Your task to perform on an android device: change notifications settings Image 0: 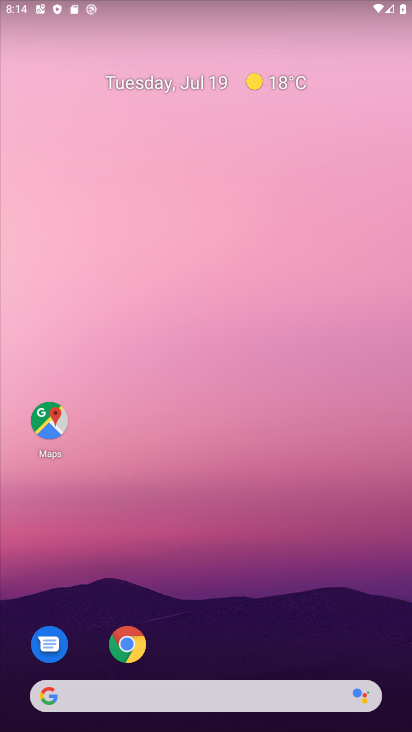
Step 0: drag from (219, 695) to (219, 68)
Your task to perform on an android device: change notifications settings Image 1: 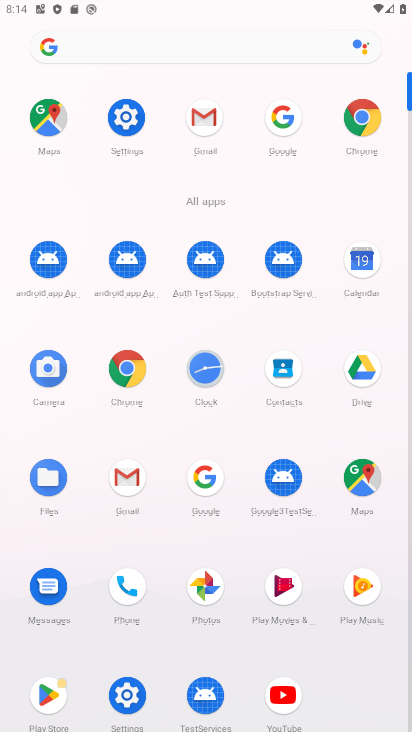
Step 1: click (121, 122)
Your task to perform on an android device: change notifications settings Image 2: 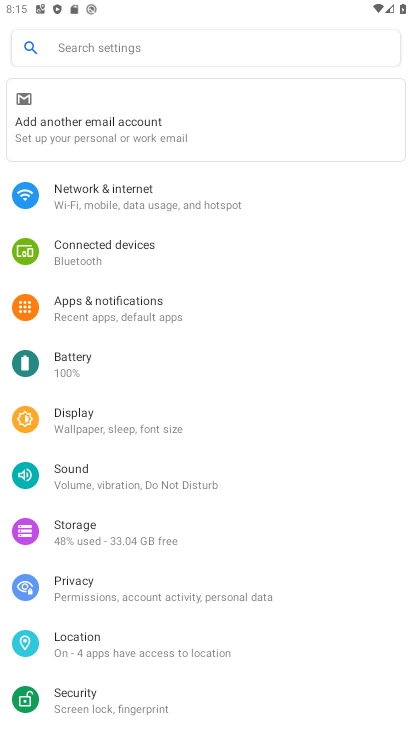
Step 2: click (89, 319)
Your task to perform on an android device: change notifications settings Image 3: 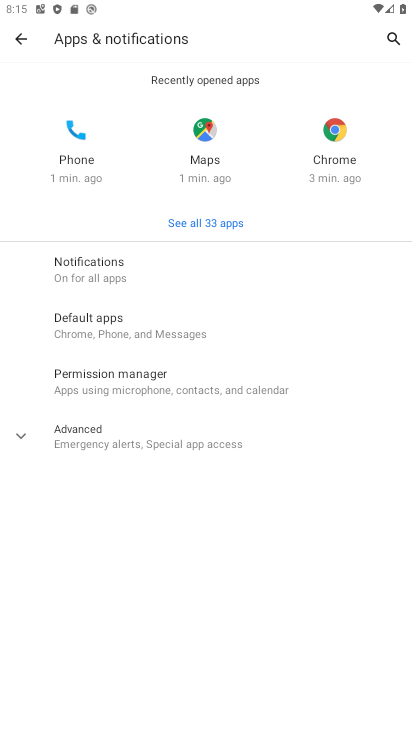
Step 3: click (98, 265)
Your task to perform on an android device: change notifications settings Image 4: 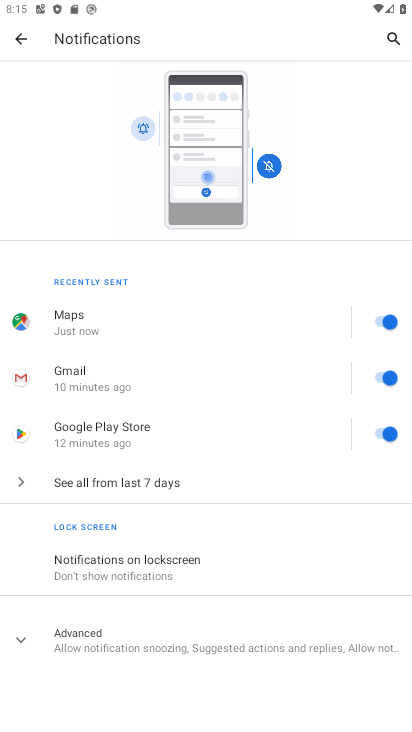
Step 4: click (151, 639)
Your task to perform on an android device: change notifications settings Image 5: 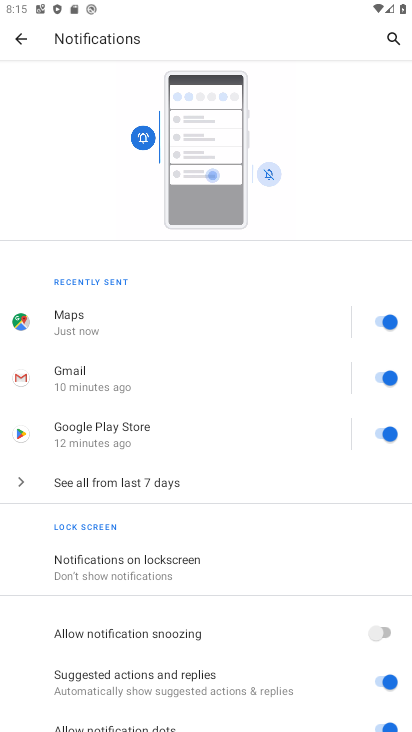
Step 5: click (390, 630)
Your task to perform on an android device: change notifications settings Image 6: 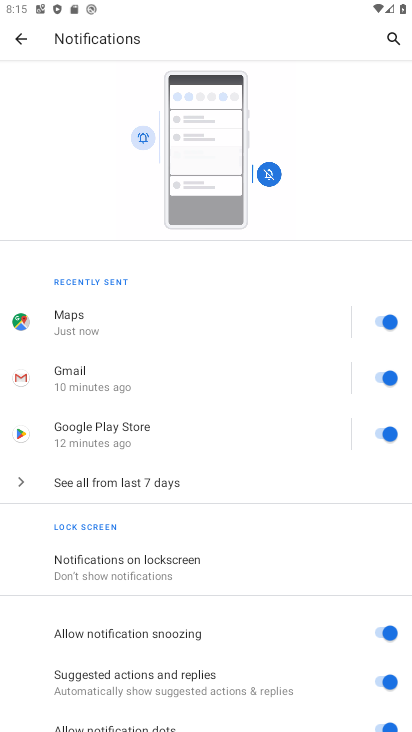
Step 6: task complete